Your task to perform on an android device: Go to Maps Image 0: 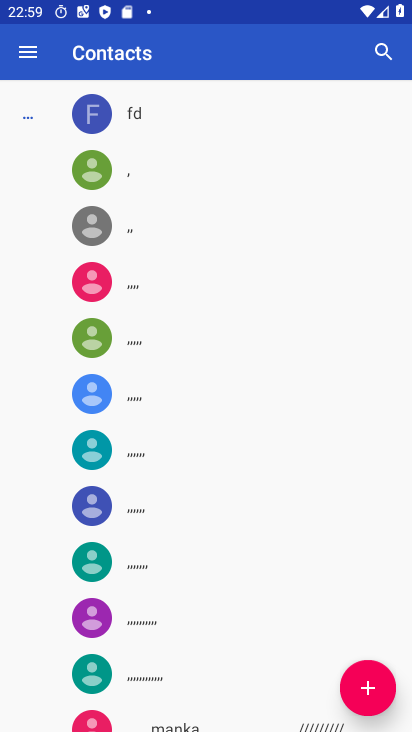
Step 0: press home button
Your task to perform on an android device: Go to Maps Image 1: 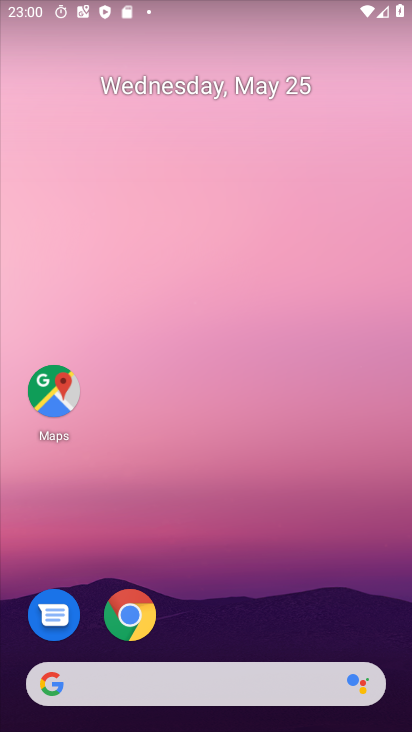
Step 1: click (41, 382)
Your task to perform on an android device: Go to Maps Image 2: 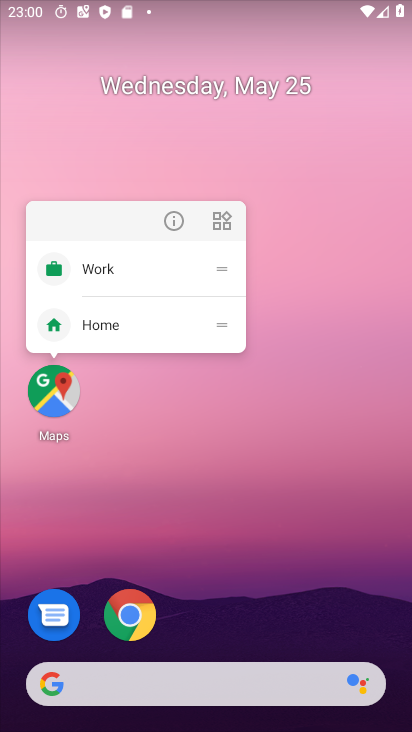
Step 2: click (58, 401)
Your task to perform on an android device: Go to Maps Image 3: 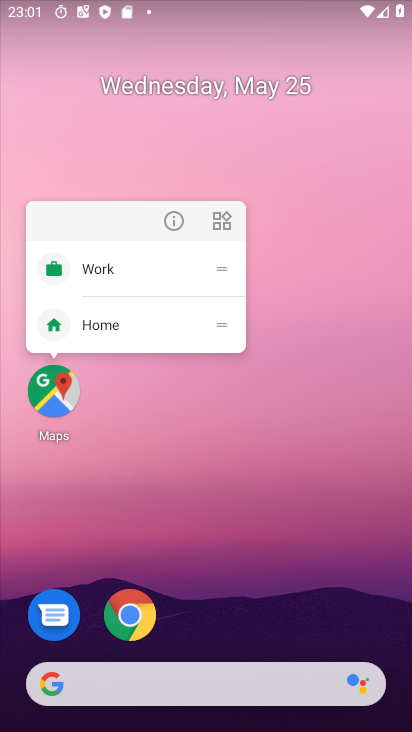
Step 3: click (54, 379)
Your task to perform on an android device: Go to Maps Image 4: 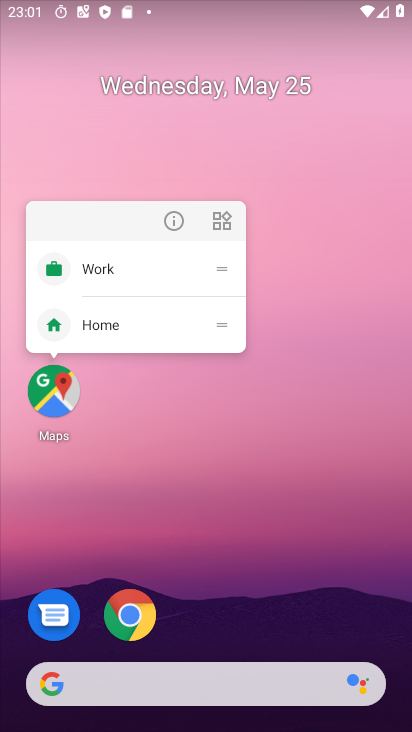
Step 4: click (59, 403)
Your task to perform on an android device: Go to Maps Image 5: 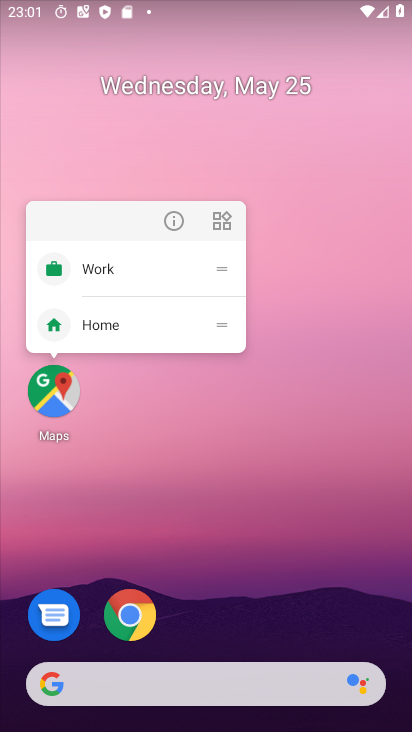
Step 5: click (57, 378)
Your task to perform on an android device: Go to Maps Image 6: 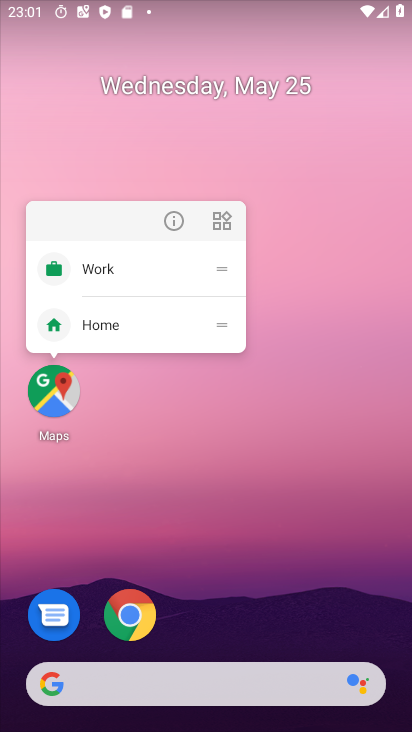
Step 6: click (122, 327)
Your task to perform on an android device: Go to Maps Image 7: 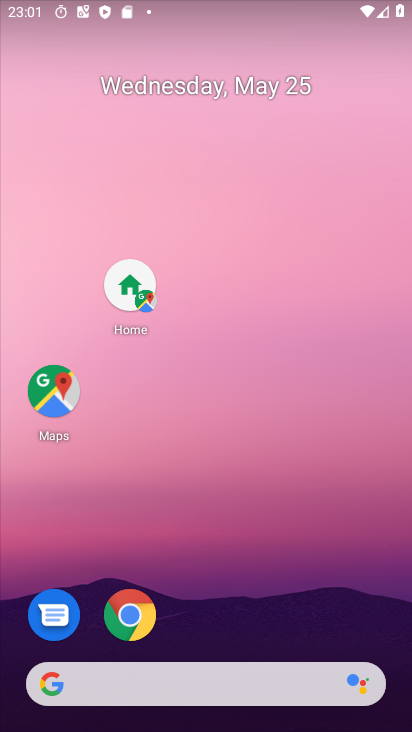
Step 7: click (65, 381)
Your task to perform on an android device: Go to Maps Image 8: 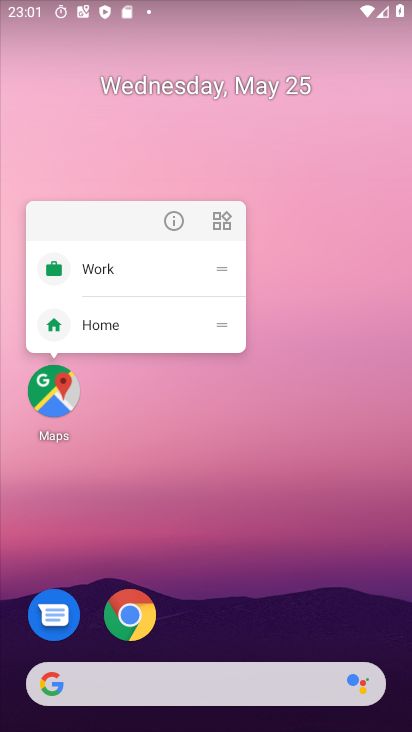
Step 8: click (41, 394)
Your task to perform on an android device: Go to Maps Image 9: 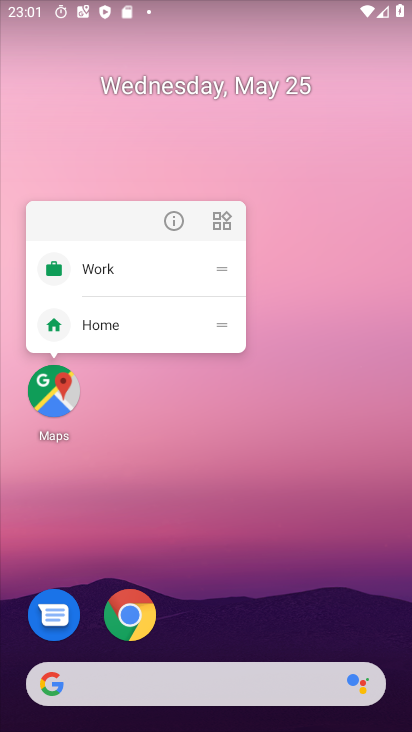
Step 9: click (41, 394)
Your task to perform on an android device: Go to Maps Image 10: 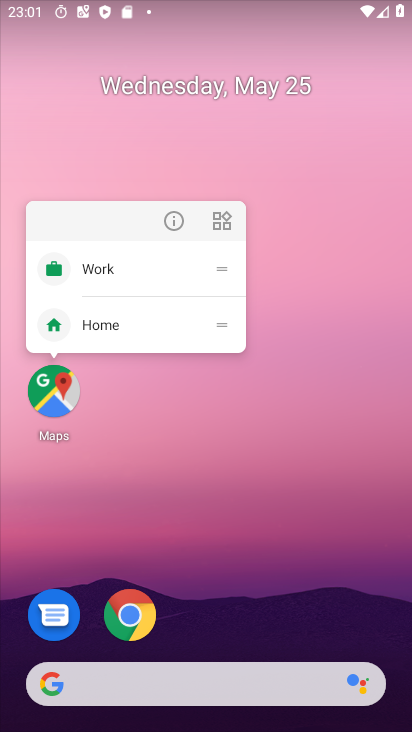
Step 10: click (41, 394)
Your task to perform on an android device: Go to Maps Image 11: 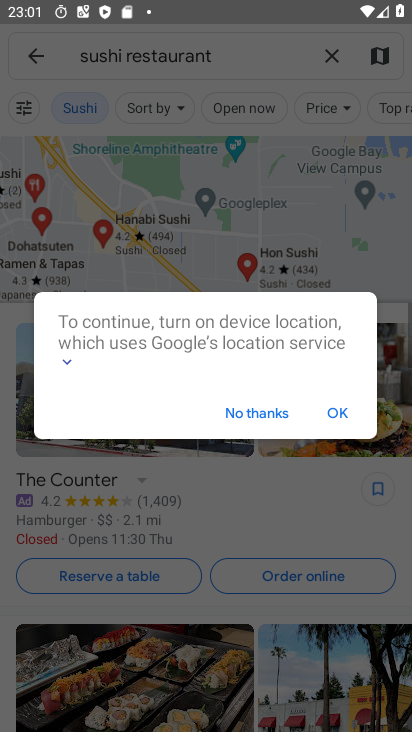
Step 11: click (335, 55)
Your task to perform on an android device: Go to Maps Image 12: 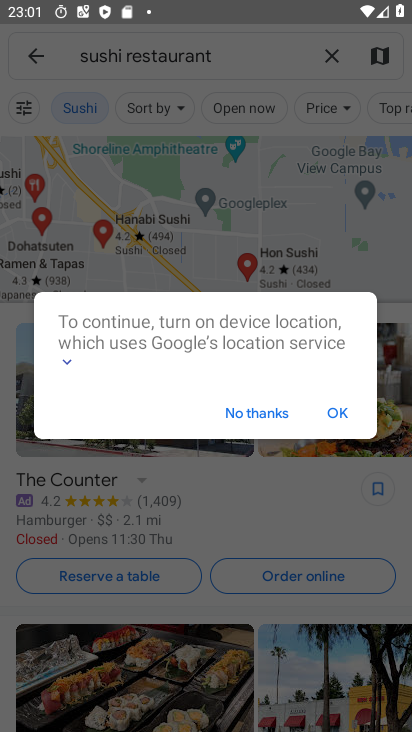
Step 12: click (264, 416)
Your task to perform on an android device: Go to Maps Image 13: 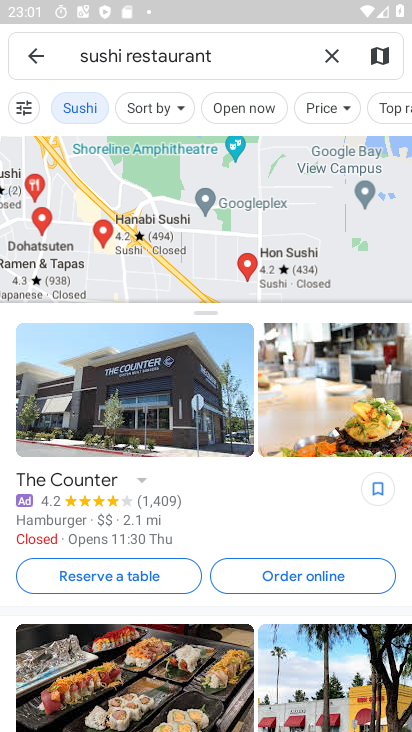
Step 13: task complete